Your task to perform on an android device: turn off wifi Image 0: 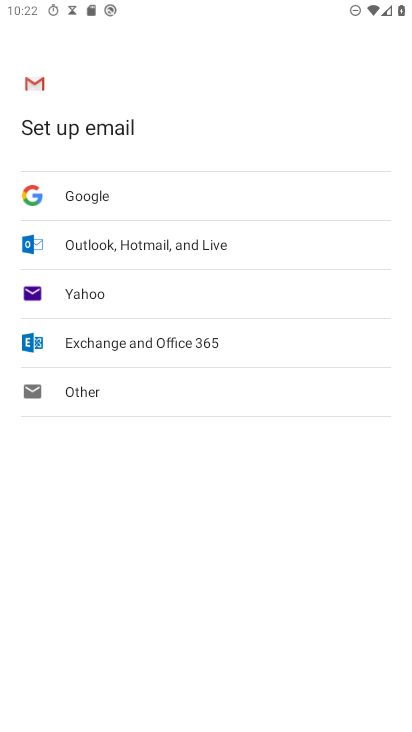
Step 0: press home button
Your task to perform on an android device: turn off wifi Image 1: 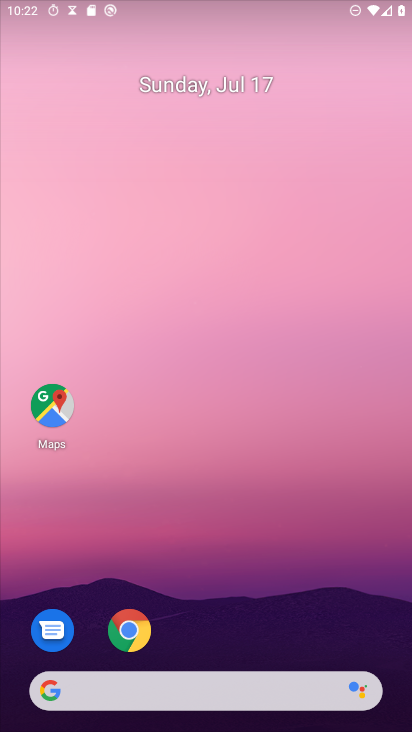
Step 1: drag from (192, 704) to (157, 101)
Your task to perform on an android device: turn off wifi Image 2: 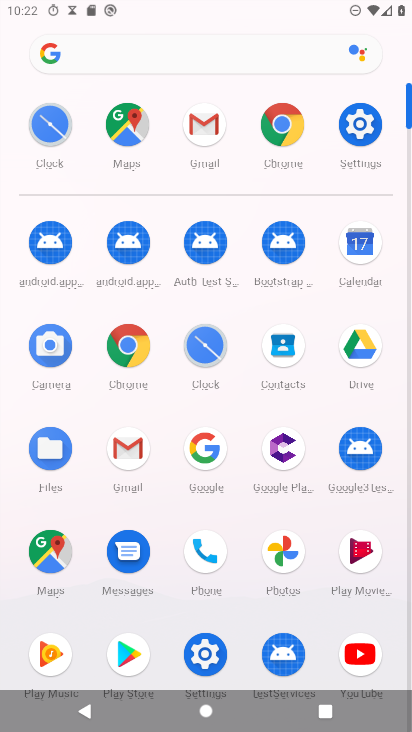
Step 2: click (378, 133)
Your task to perform on an android device: turn off wifi Image 3: 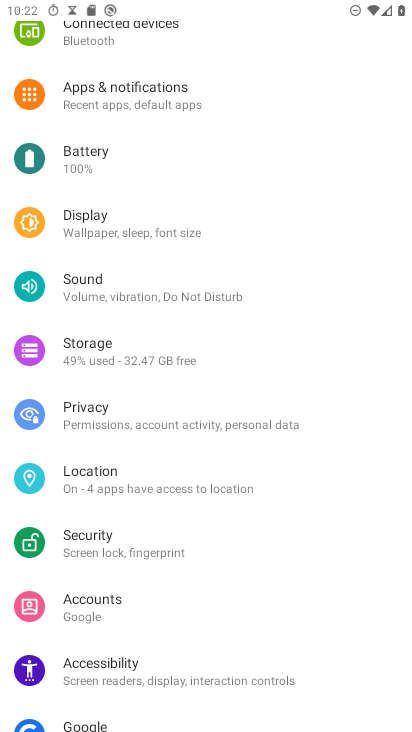
Step 3: drag from (91, 108) to (148, 577)
Your task to perform on an android device: turn off wifi Image 4: 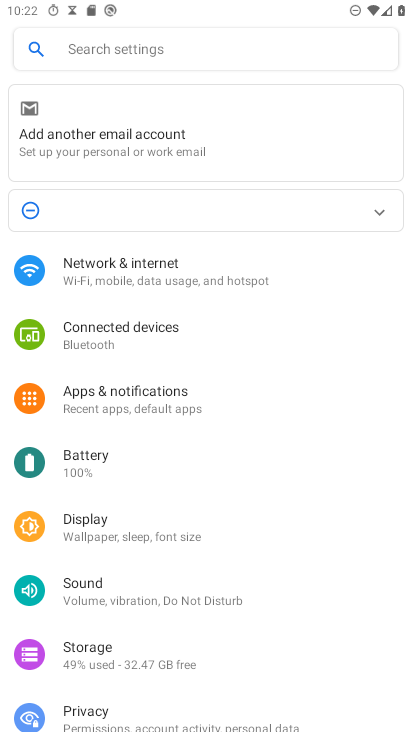
Step 4: click (214, 289)
Your task to perform on an android device: turn off wifi Image 5: 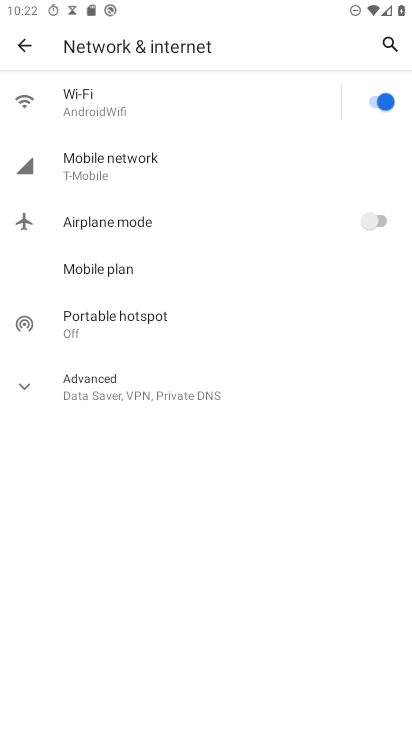
Step 5: click (376, 96)
Your task to perform on an android device: turn off wifi Image 6: 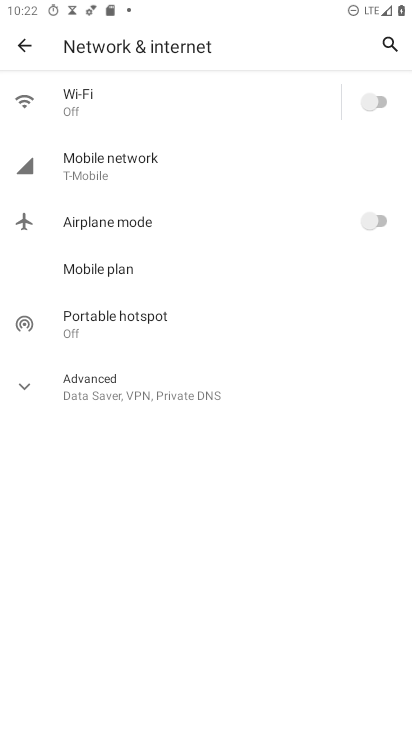
Step 6: task complete